Your task to perform on an android device: manage bookmarks in the chrome app Image 0: 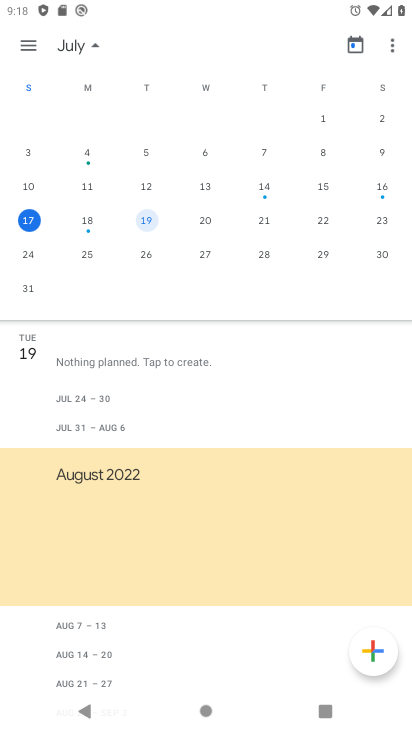
Step 0: press back button
Your task to perform on an android device: manage bookmarks in the chrome app Image 1: 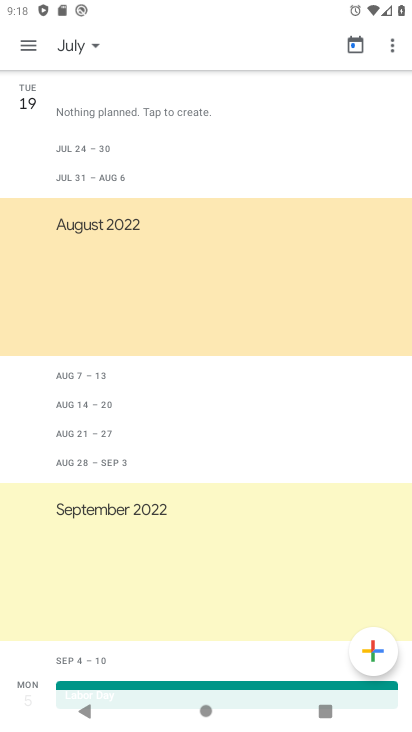
Step 1: press back button
Your task to perform on an android device: manage bookmarks in the chrome app Image 2: 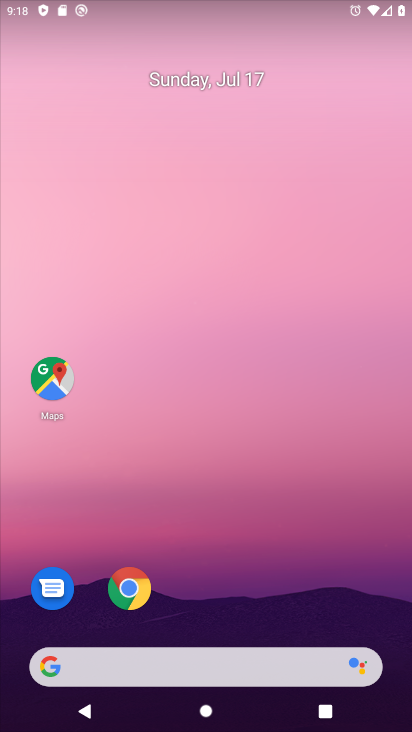
Step 2: drag from (285, 664) to (243, 155)
Your task to perform on an android device: manage bookmarks in the chrome app Image 3: 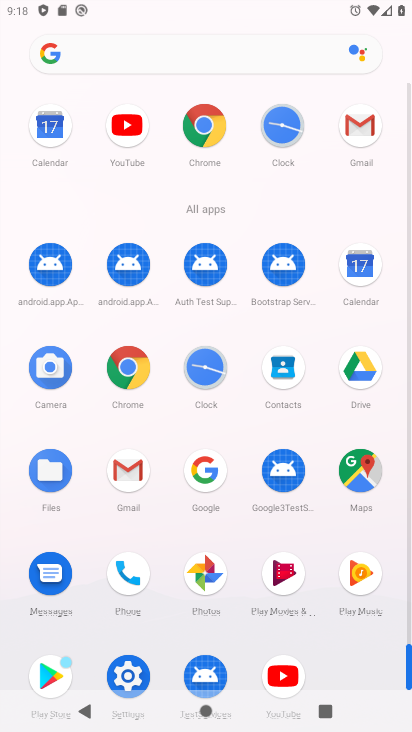
Step 3: click (206, 132)
Your task to perform on an android device: manage bookmarks in the chrome app Image 4: 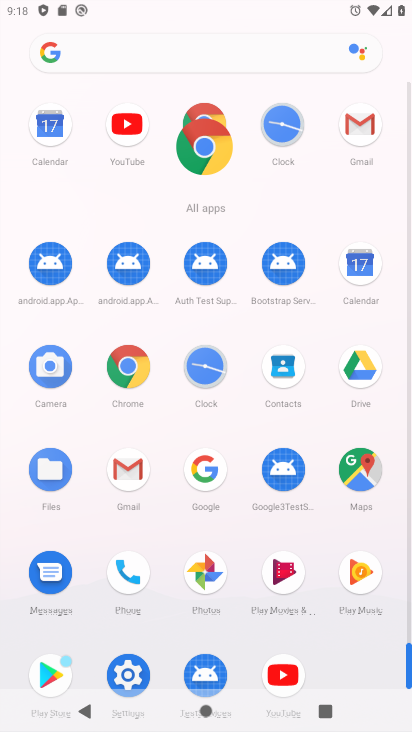
Step 4: click (206, 132)
Your task to perform on an android device: manage bookmarks in the chrome app Image 5: 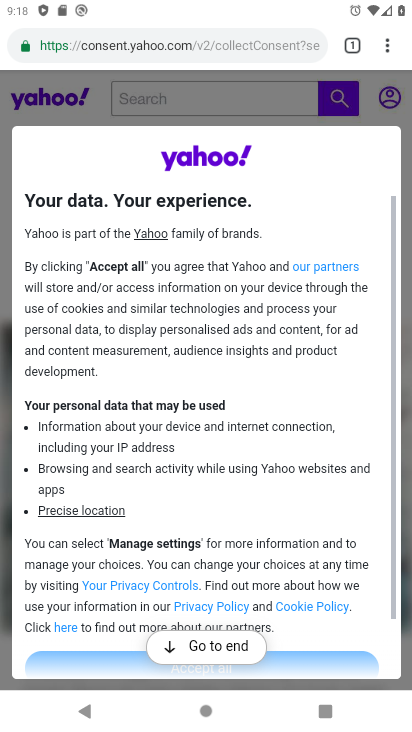
Step 5: drag from (388, 53) to (252, 165)
Your task to perform on an android device: manage bookmarks in the chrome app Image 6: 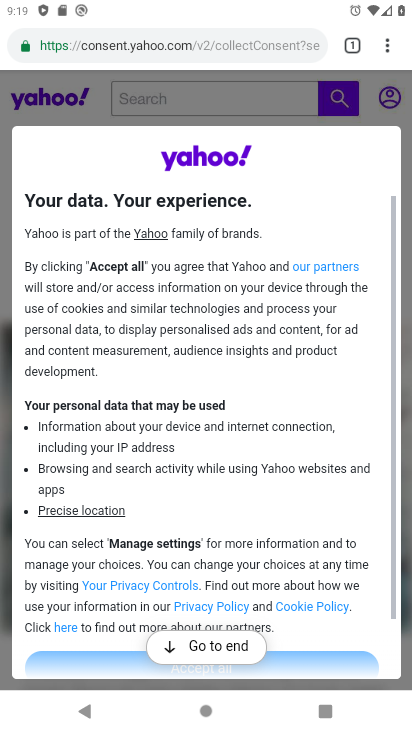
Step 6: click (261, 166)
Your task to perform on an android device: manage bookmarks in the chrome app Image 7: 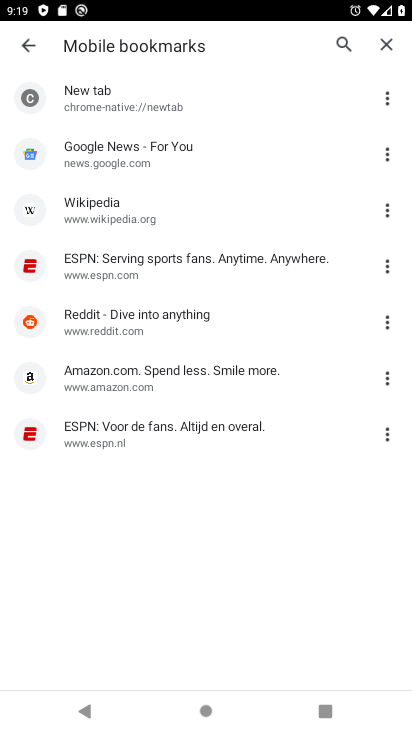
Step 7: task complete